Your task to perform on an android device: check battery use Image 0: 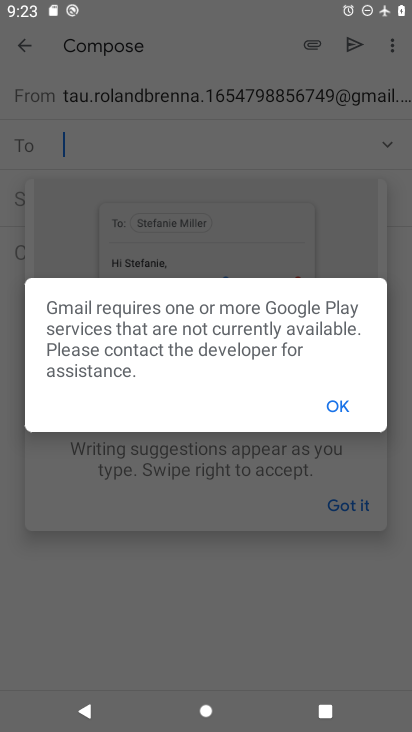
Step 0: press home button
Your task to perform on an android device: check battery use Image 1: 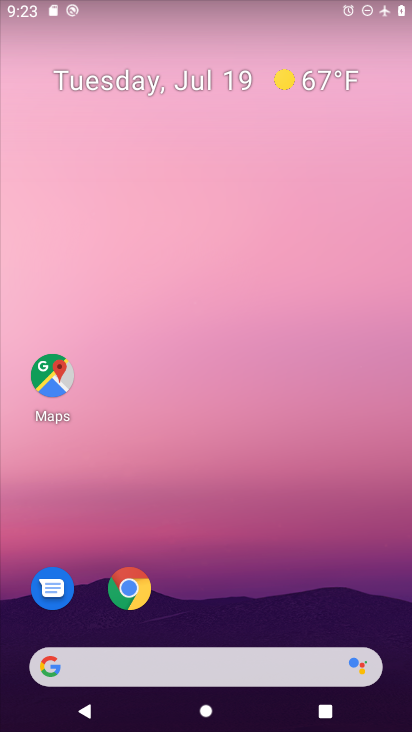
Step 1: drag from (310, 562) to (324, 305)
Your task to perform on an android device: check battery use Image 2: 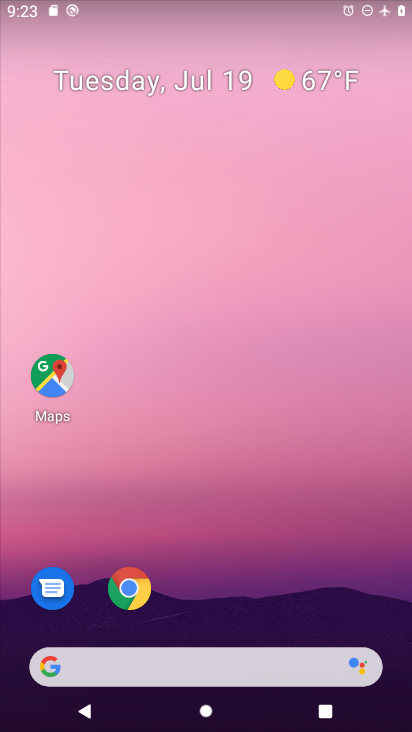
Step 2: drag from (300, 556) to (285, 69)
Your task to perform on an android device: check battery use Image 3: 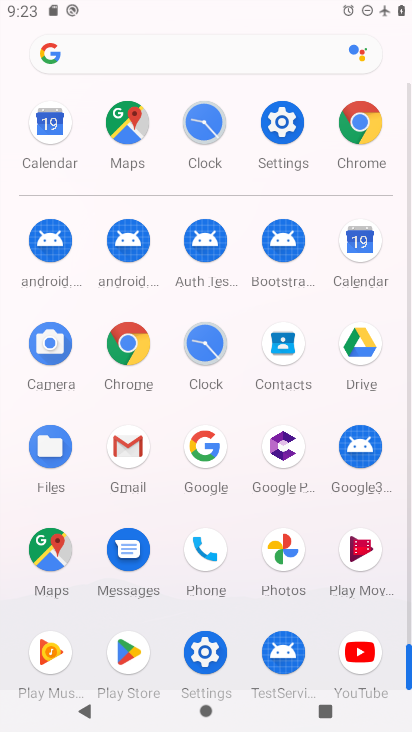
Step 3: click (295, 148)
Your task to perform on an android device: check battery use Image 4: 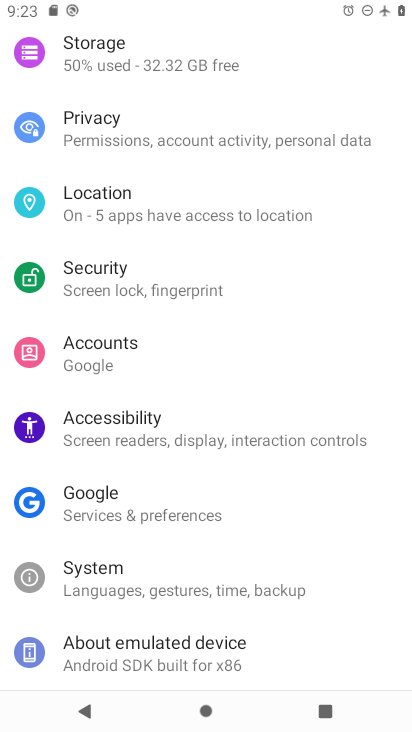
Step 4: drag from (342, 513) to (346, 334)
Your task to perform on an android device: check battery use Image 5: 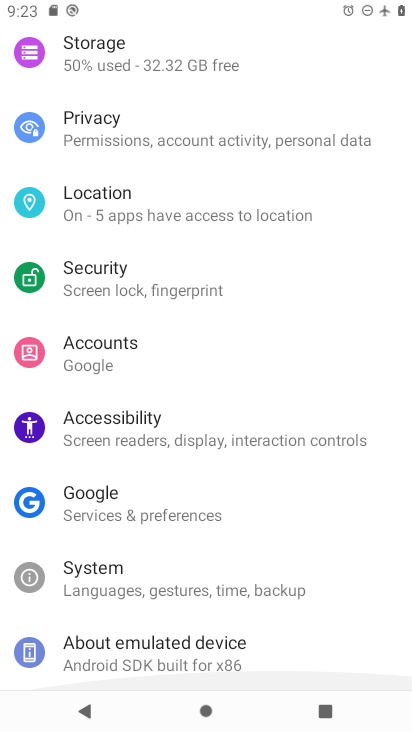
Step 5: drag from (348, 264) to (358, 343)
Your task to perform on an android device: check battery use Image 6: 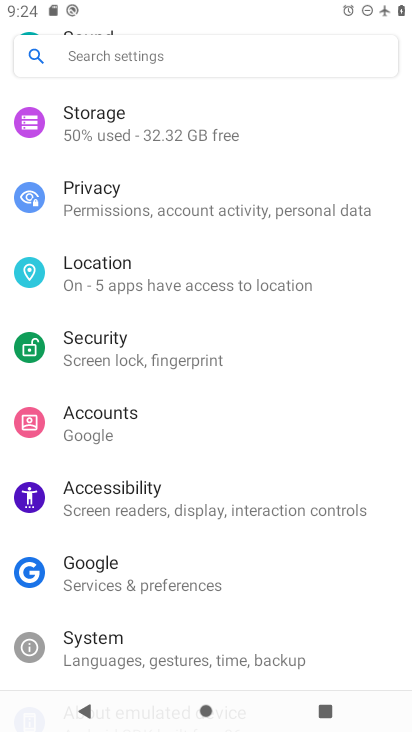
Step 6: drag from (354, 271) to (356, 388)
Your task to perform on an android device: check battery use Image 7: 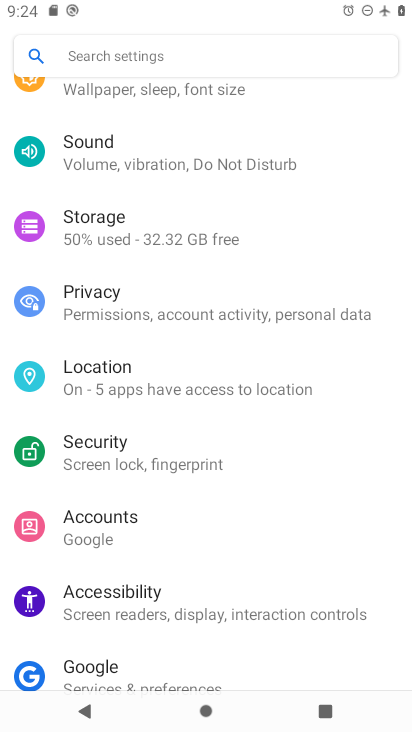
Step 7: drag from (356, 245) to (357, 373)
Your task to perform on an android device: check battery use Image 8: 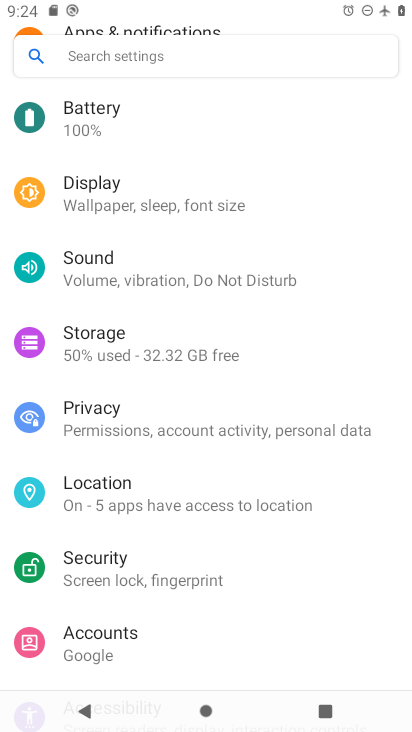
Step 8: drag from (355, 230) to (355, 350)
Your task to perform on an android device: check battery use Image 9: 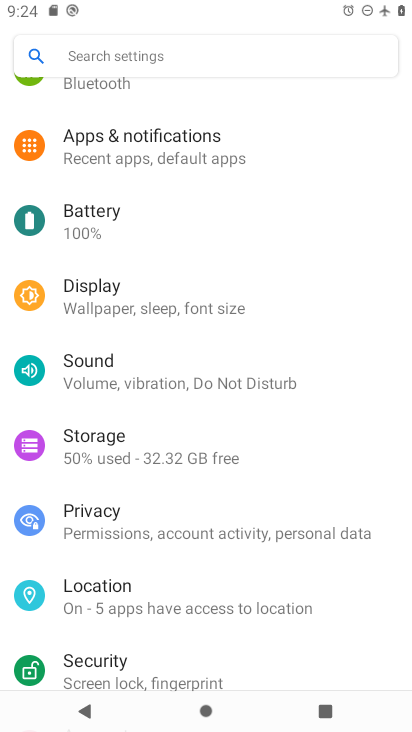
Step 9: drag from (352, 222) to (351, 280)
Your task to perform on an android device: check battery use Image 10: 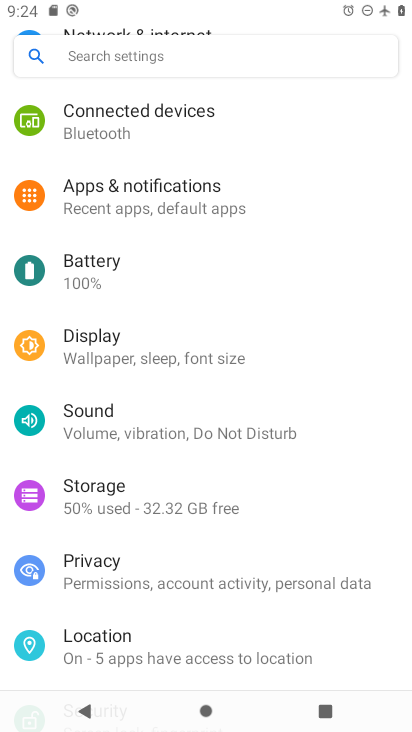
Step 10: drag from (339, 189) to (339, 270)
Your task to perform on an android device: check battery use Image 11: 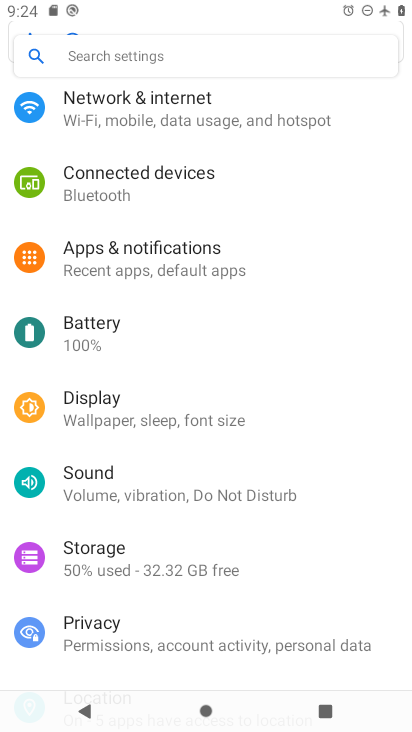
Step 11: drag from (339, 236) to (355, 331)
Your task to perform on an android device: check battery use Image 12: 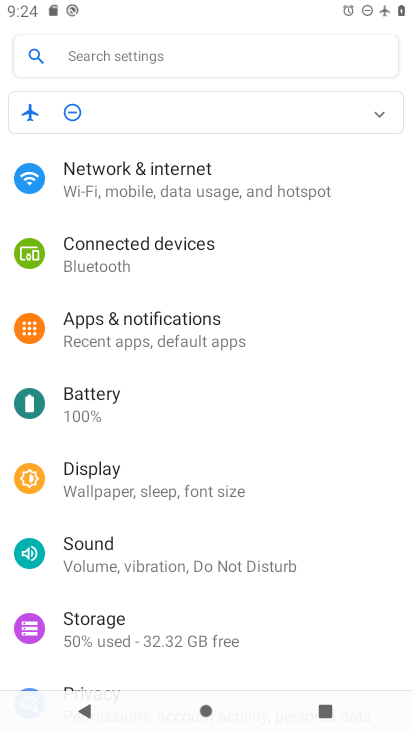
Step 12: click (265, 413)
Your task to perform on an android device: check battery use Image 13: 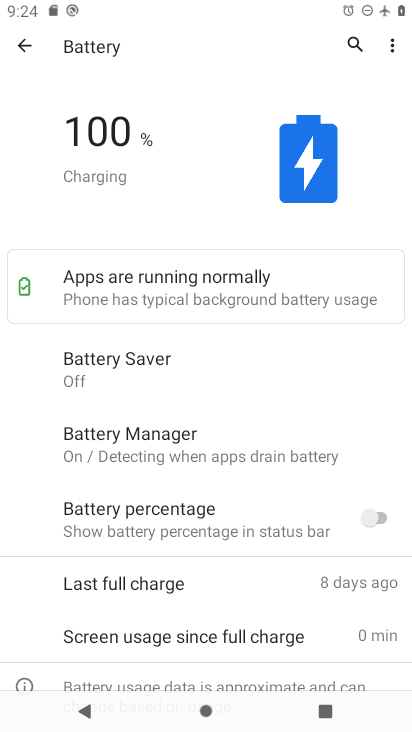
Step 13: click (395, 53)
Your task to perform on an android device: check battery use Image 14: 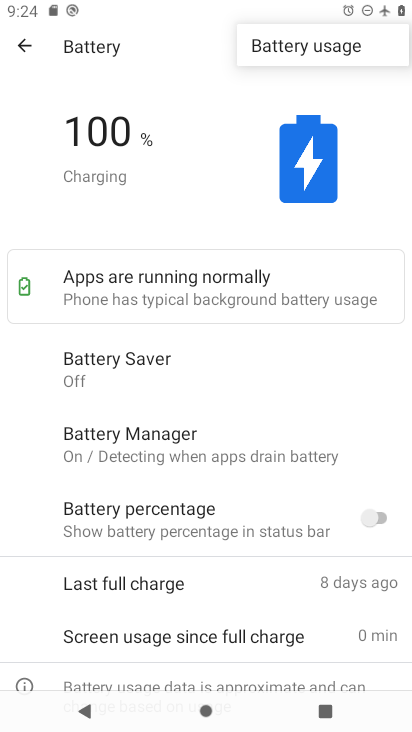
Step 14: click (357, 39)
Your task to perform on an android device: check battery use Image 15: 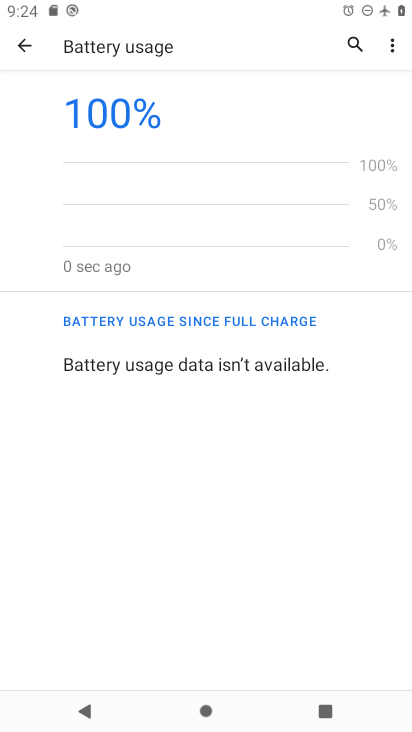
Step 15: task complete